Your task to perform on an android device: What's the weather going to be this weekend? Image 0: 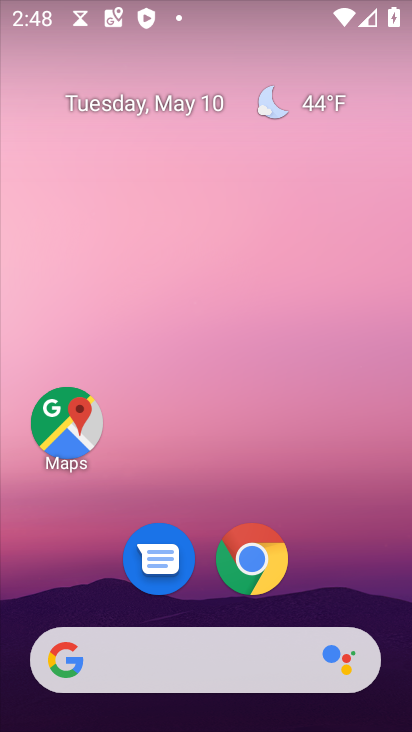
Step 0: drag from (306, 571) to (143, 118)
Your task to perform on an android device: What's the weather going to be this weekend? Image 1: 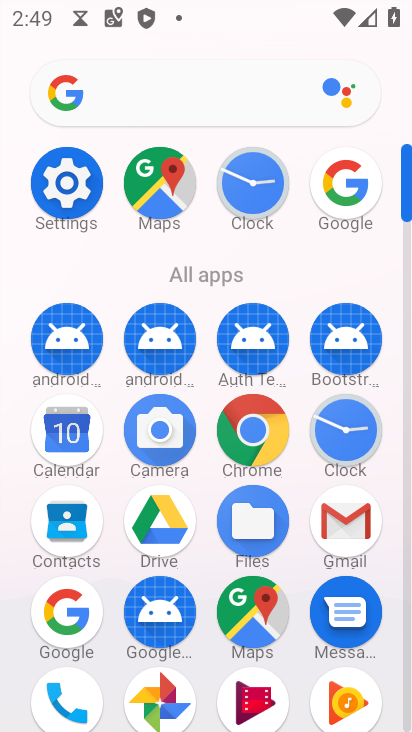
Step 1: press back button
Your task to perform on an android device: What's the weather going to be this weekend? Image 2: 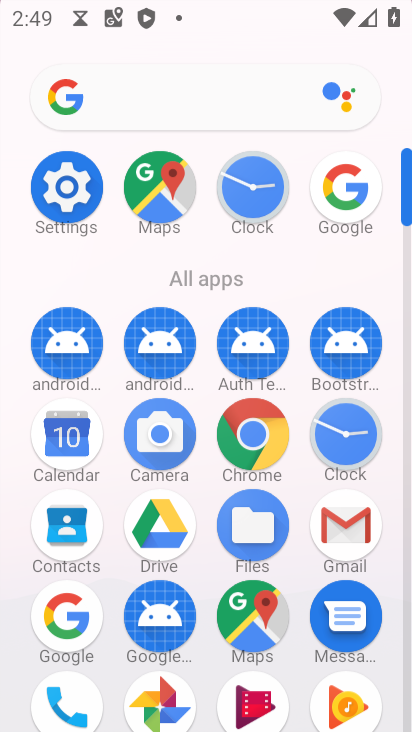
Step 2: press back button
Your task to perform on an android device: What's the weather going to be this weekend? Image 3: 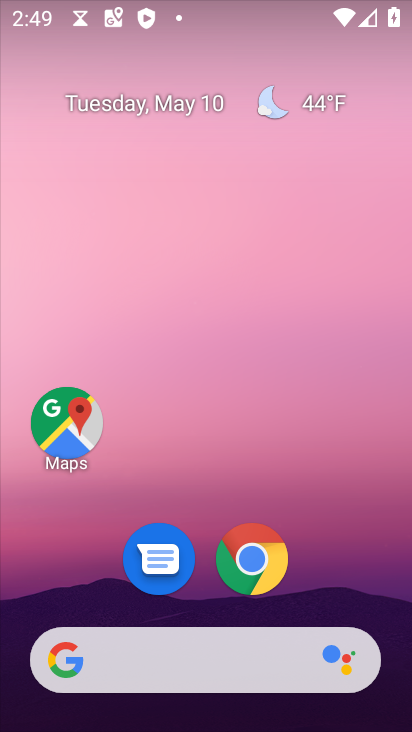
Step 3: press back button
Your task to perform on an android device: What's the weather going to be this weekend? Image 4: 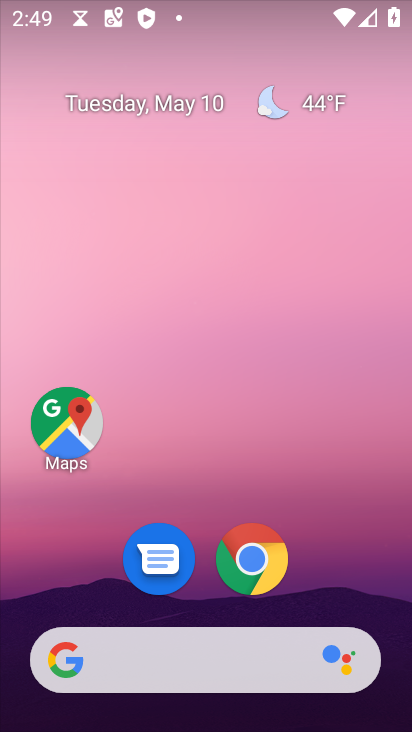
Step 4: drag from (358, 577) to (325, 506)
Your task to perform on an android device: What's the weather going to be this weekend? Image 5: 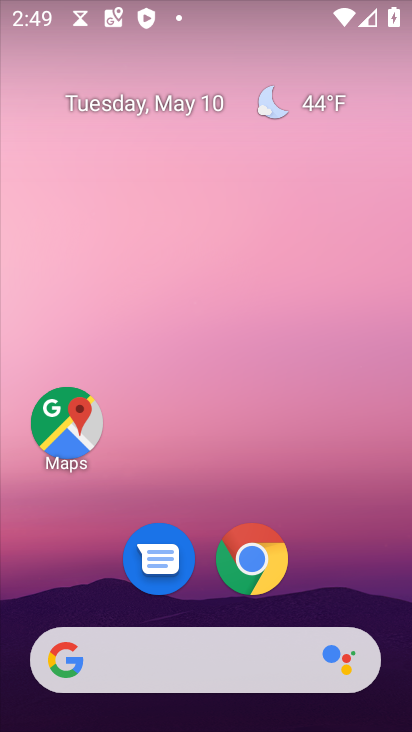
Step 5: click (282, 101)
Your task to perform on an android device: What's the weather going to be this weekend? Image 6: 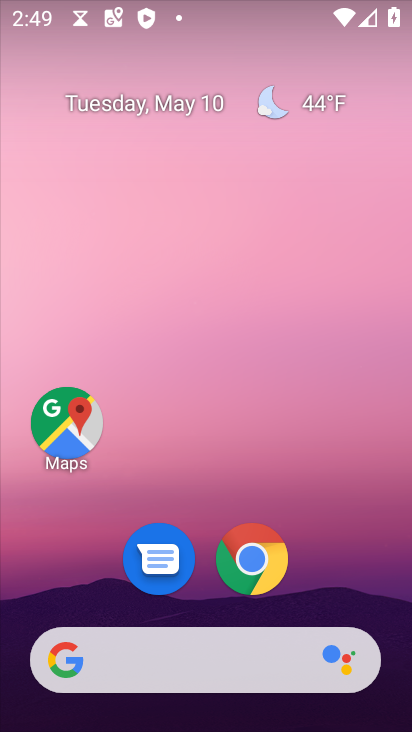
Step 6: click (279, 93)
Your task to perform on an android device: What's the weather going to be this weekend? Image 7: 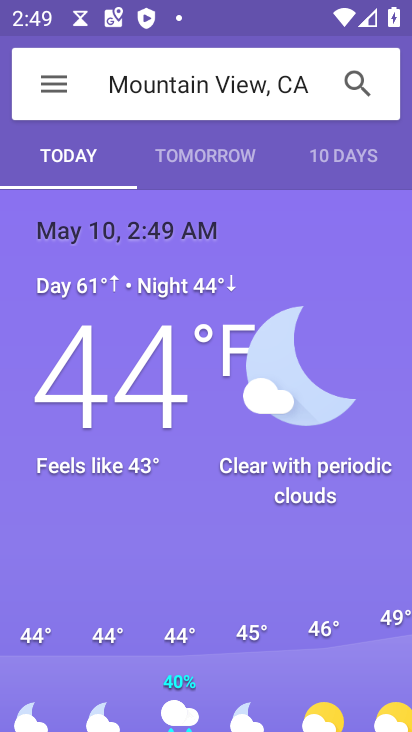
Step 7: drag from (236, 520) to (166, 147)
Your task to perform on an android device: What's the weather going to be this weekend? Image 8: 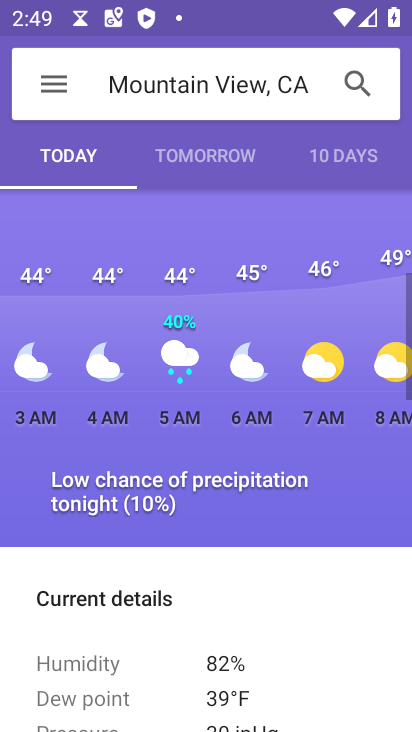
Step 8: drag from (184, 442) to (147, 218)
Your task to perform on an android device: What's the weather going to be this weekend? Image 9: 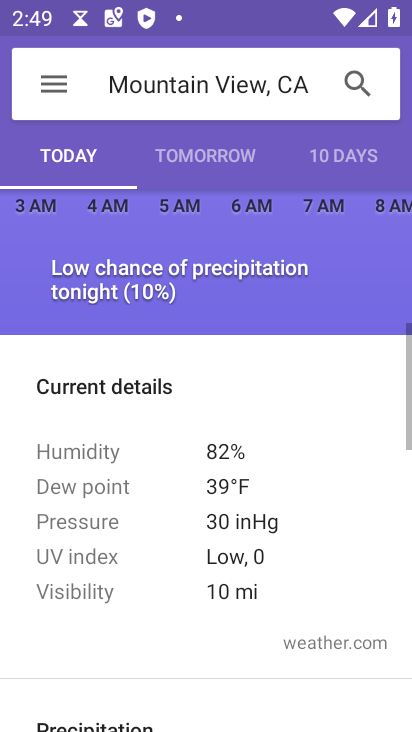
Step 9: drag from (194, 472) to (133, 223)
Your task to perform on an android device: What's the weather going to be this weekend? Image 10: 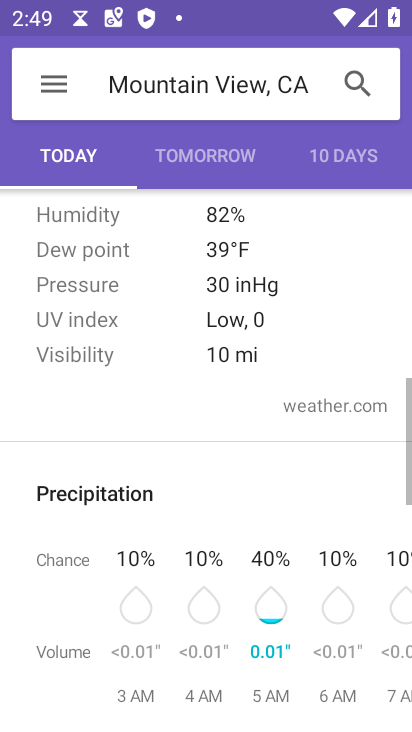
Step 10: drag from (182, 419) to (131, 92)
Your task to perform on an android device: What's the weather going to be this weekend? Image 11: 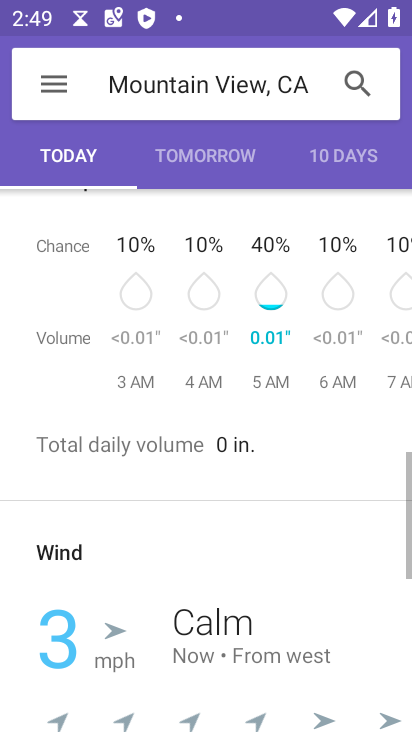
Step 11: drag from (238, 441) to (183, 191)
Your task to perform on an android device: What's the weather going to be this weekend? Image 12: 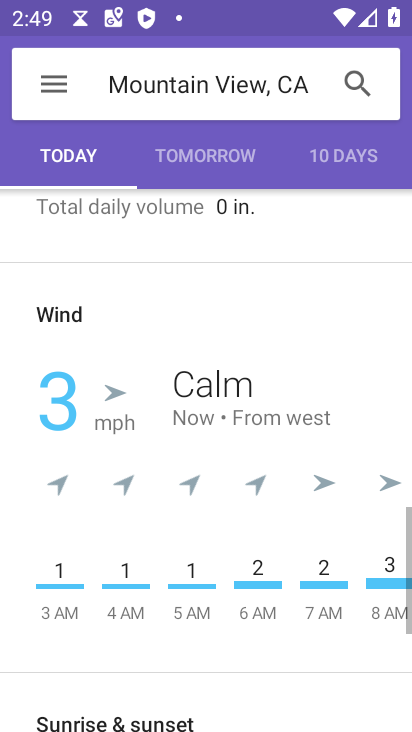
Step 12: drag from (153, 471) to (120, 122)
Your task to perform on an android device: What's the weather going to be this weekend? Image 13: 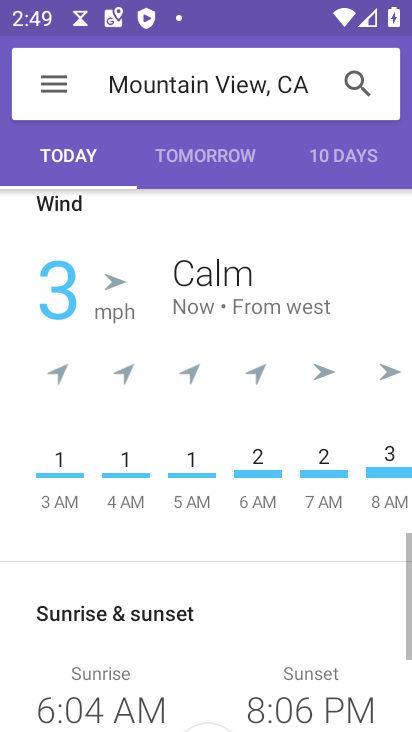
Step 13: drag from (198, 403) to (171, 23)
Your task to perform on an android device: What's the weather going to be this weekend? Image 14: 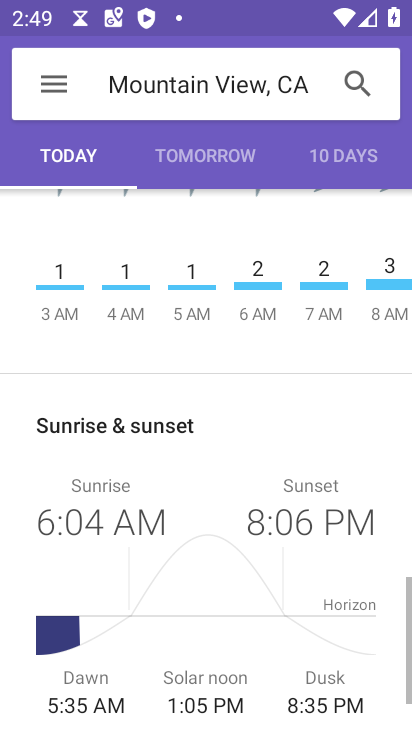
Step 14: drag from (226, 471) to (174, 164)
Your task to perform on an android device: What's the weather going to be this weekend? Image 15: 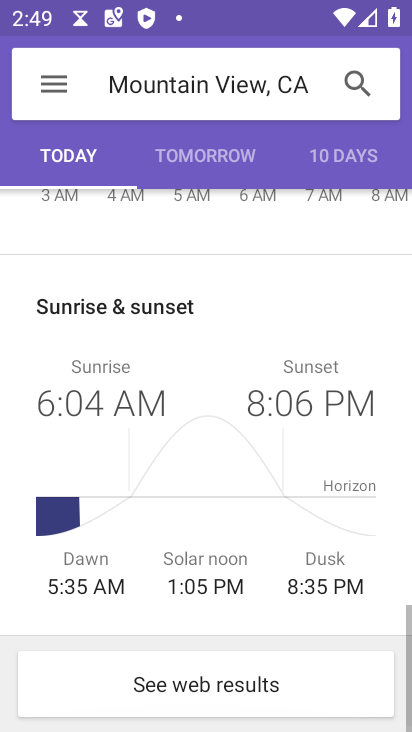
Step 15: click (210, 230)
Your task to perform on an android device: What's the weather going to be this weekend? Image 16: 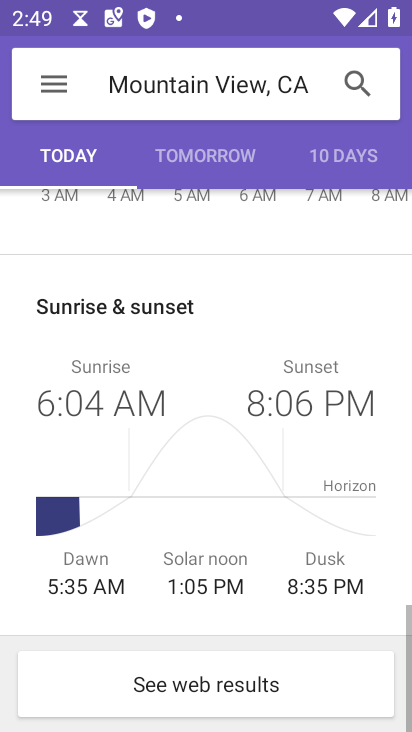
Step 16: drag from (212, 476) to (270, 23)
Your task to perform on an android device: What's the weather going to be this weekend? Image 17: 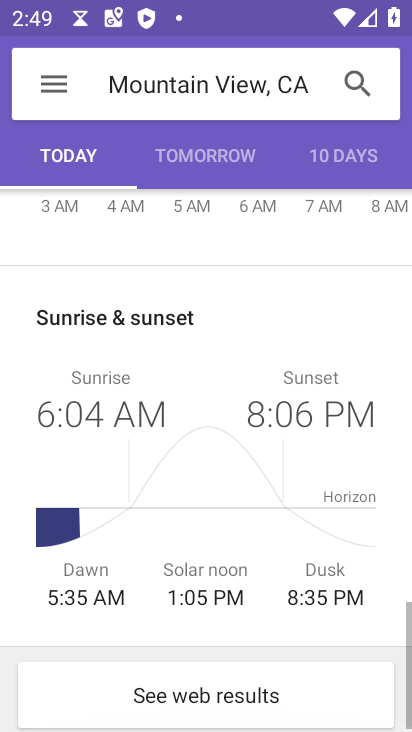
Step 17: drag from (182, 239) to (182, 159)
Your task to perform on an android device: What's the weather going to be this weekend? Image 18: 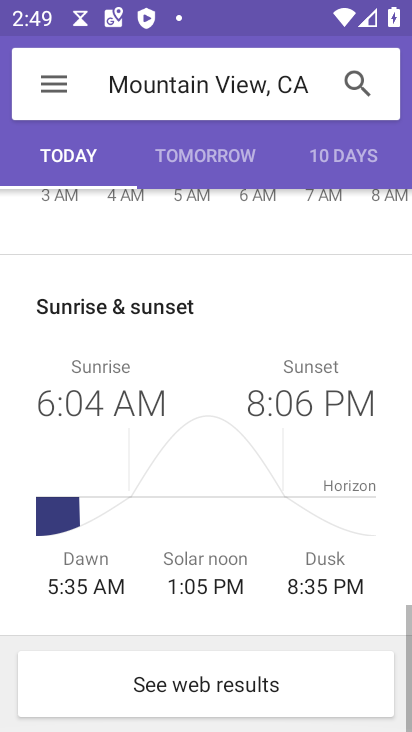
Step 18: click (159, 279)
Your task to perform on an android device: What's the weather going to be this weekend? Image 19: 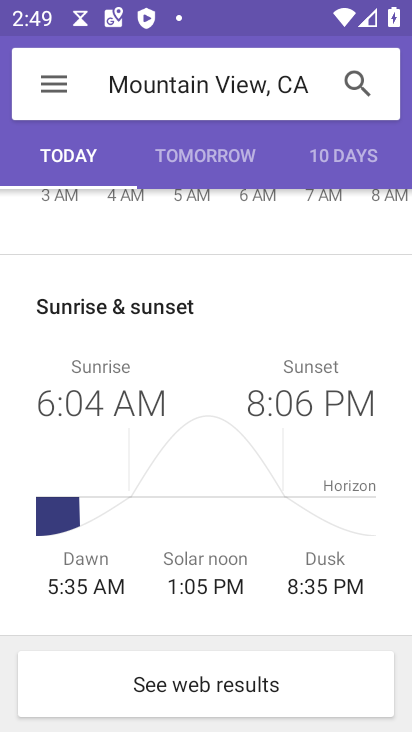
Step 19: task complete